Your task to perform on an android device: Open Google Maps Image 0: 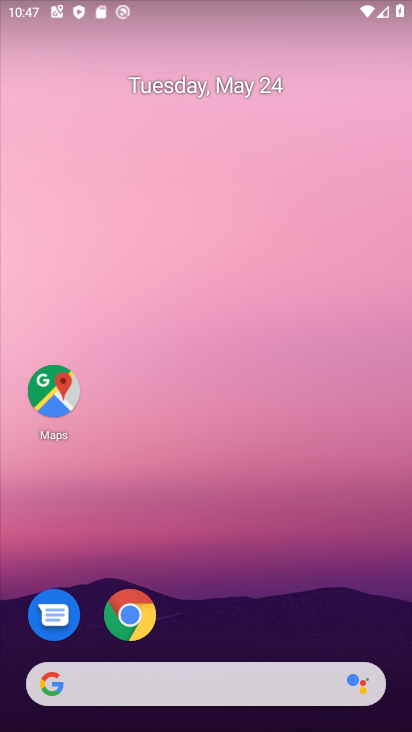
Step 0: click (35, 387)
Your task to perform on an android device: Open Google Maps Image 1: 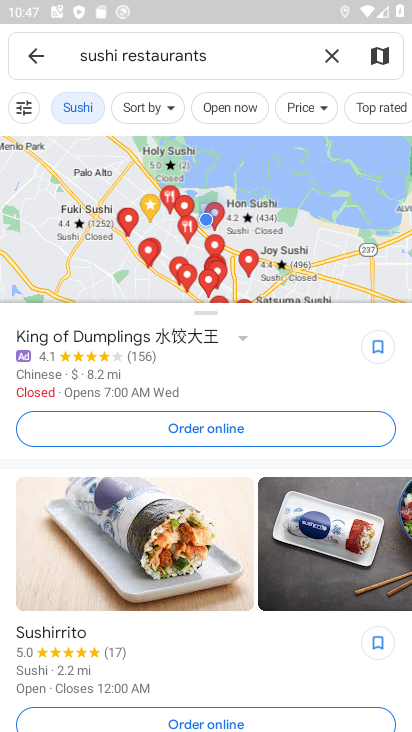
Step 1: task complete